Your task to perform on an android device: find photos in the google photos app Image 0: 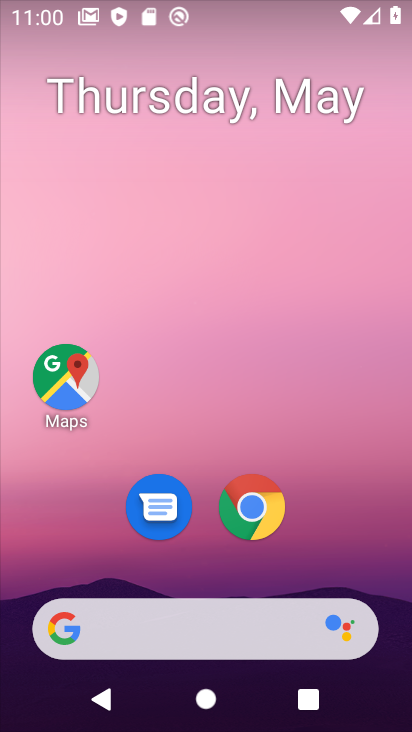
Step 0: drag from (225, 300) to (263, 55)
Your task to perform on an android device: find photos in the google photos app Image 1: 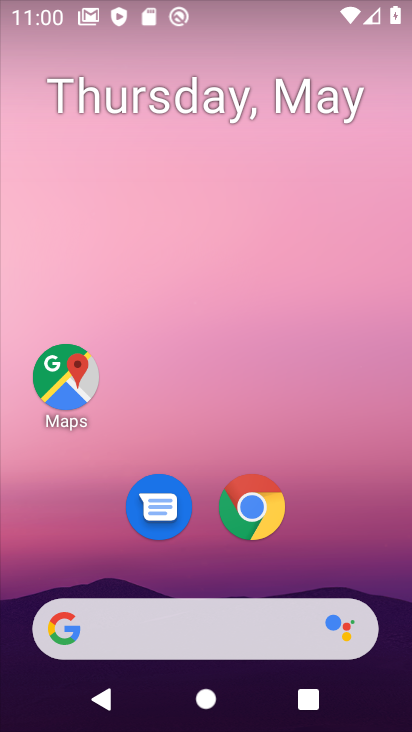
Step 1: drag from (205, 546) to (214, 54)
Your task to perform on an android device: find photos in the google photos app Image 2: 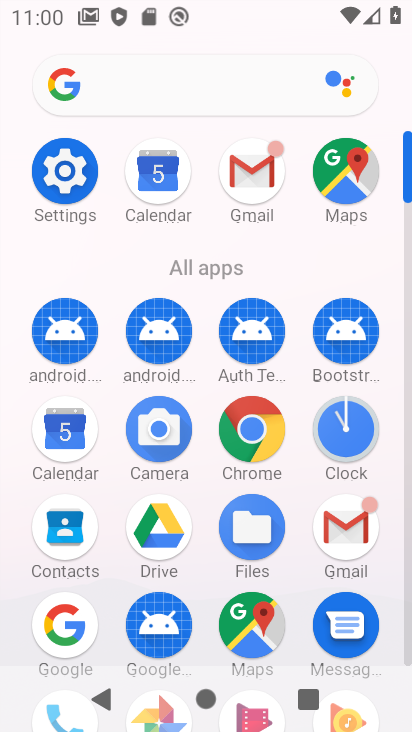
Step 2: drag from (208, 568) to (210, 289)
Your task to perform on an android device: find photos in the google photos app Image 3: 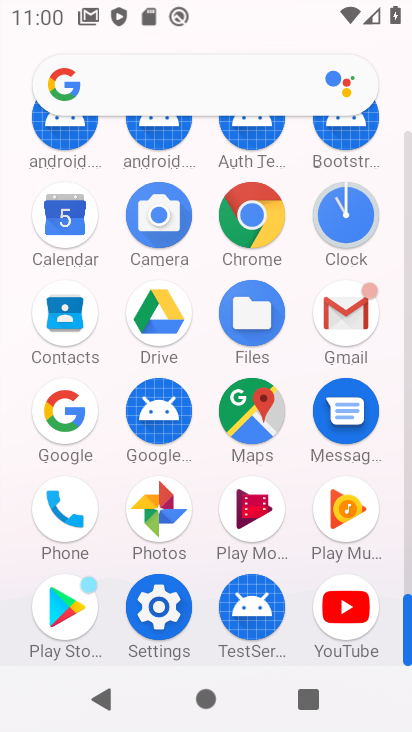
Step 3: click (166, 504)
Your task to perform on an android device: find photos in the google photos app Image 4: 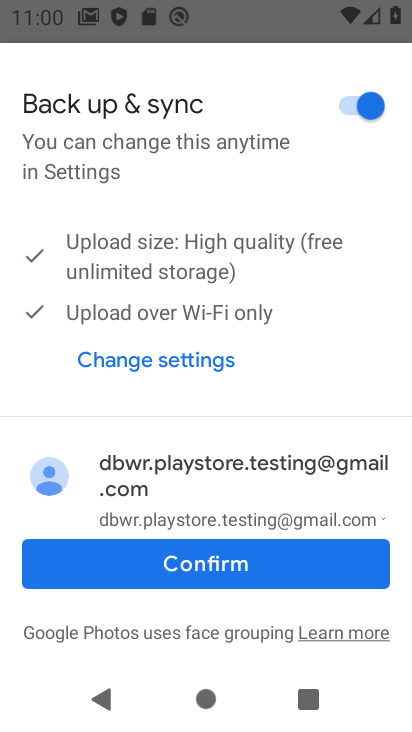
Step 4: click (161, 548)
Your task to perform on an android device: find photos in the google photos app Image 5: 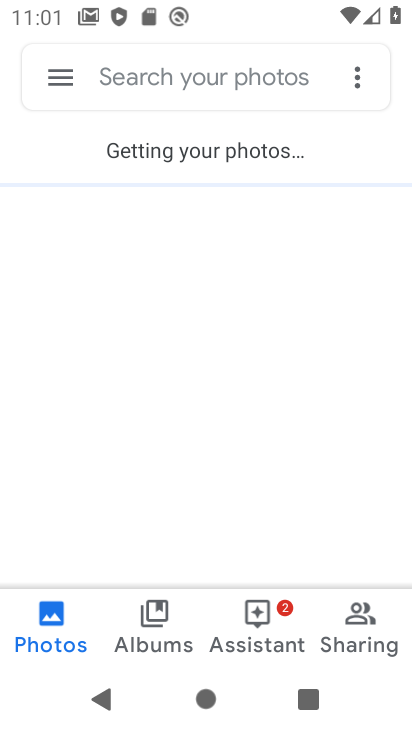
Step 5: click (64, 80)
Your task to perform on an android device: find photos in the google photos app Image 6: 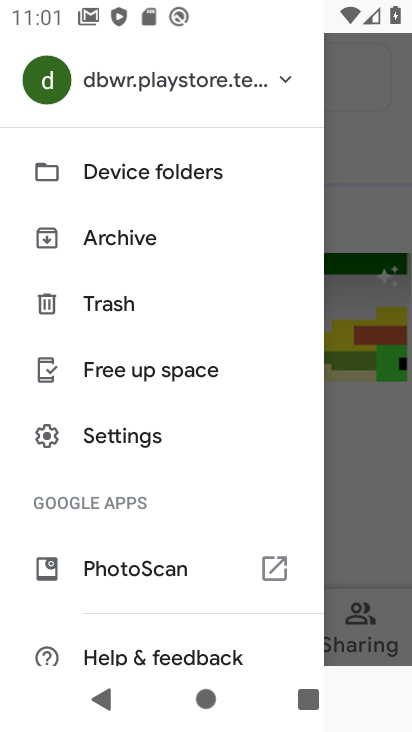
Step 6: click (345, 381)
Your task to perform on an android device: find photos in the google photos app Image 7: 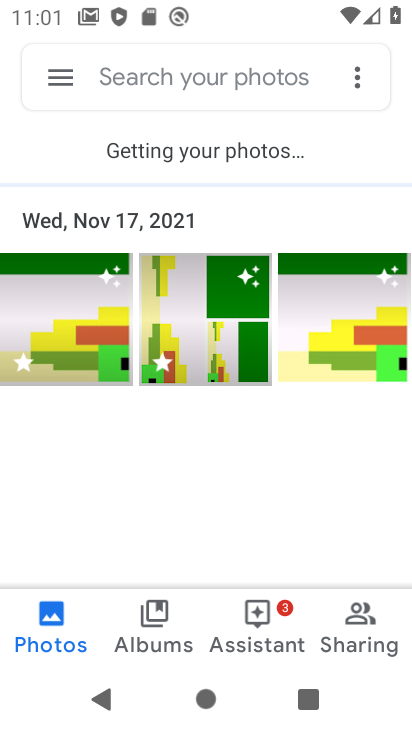
Step 7: task complete